Your task to perform on an android device: open the mobile data screen to see how much data has been used Image 0: 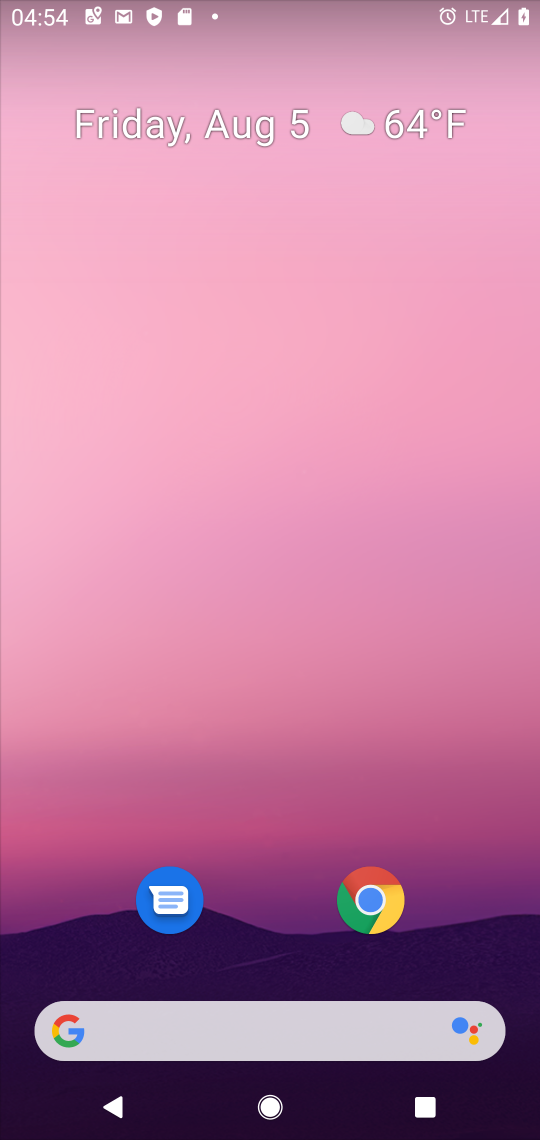
Step 0: drag from (268, 827) to (391, 88)
Your task to perform on an android device: open the mobile data screen to see how much data has been used Image 1: 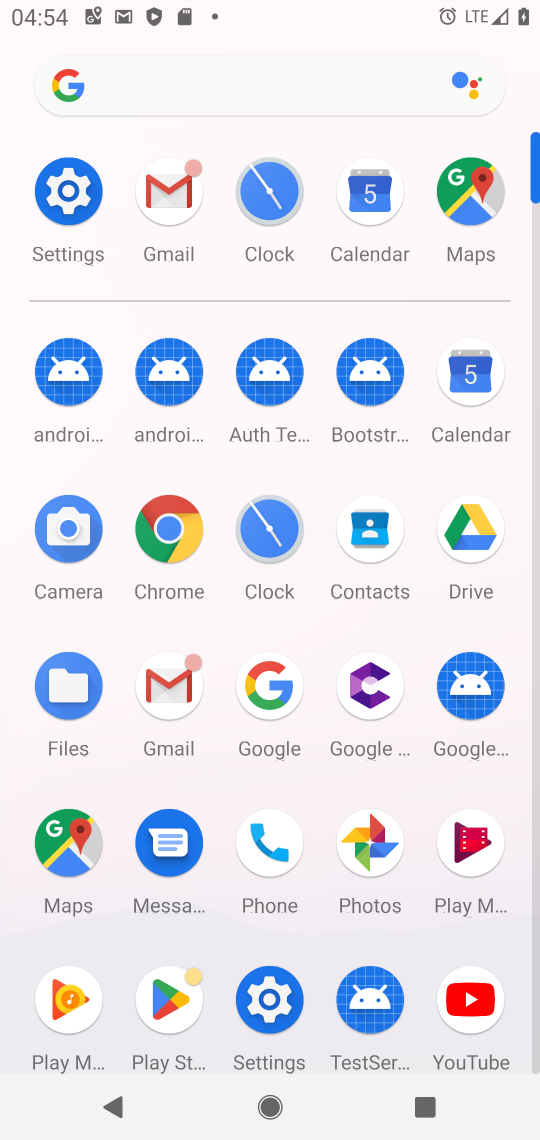
Step 1: click (62, 181)
Your task to perform on an android device: open the mobile data screen to see how much data has been used Image 2: 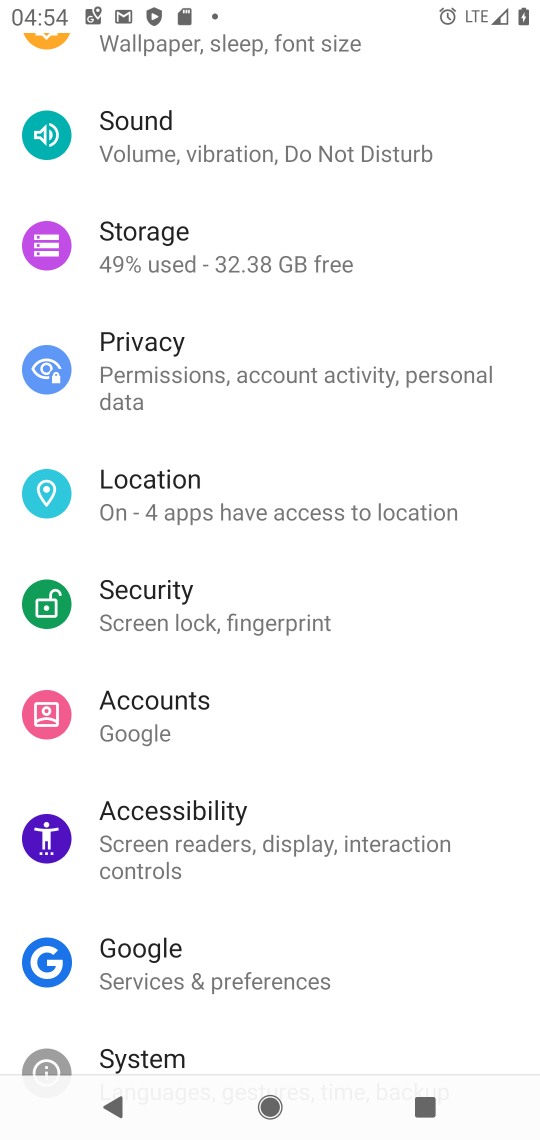
Step 2: drag from (232, 792) to (406, 17)
Your task to perform on an android device: open the mobile data screen to see how much data has been used Image 3: 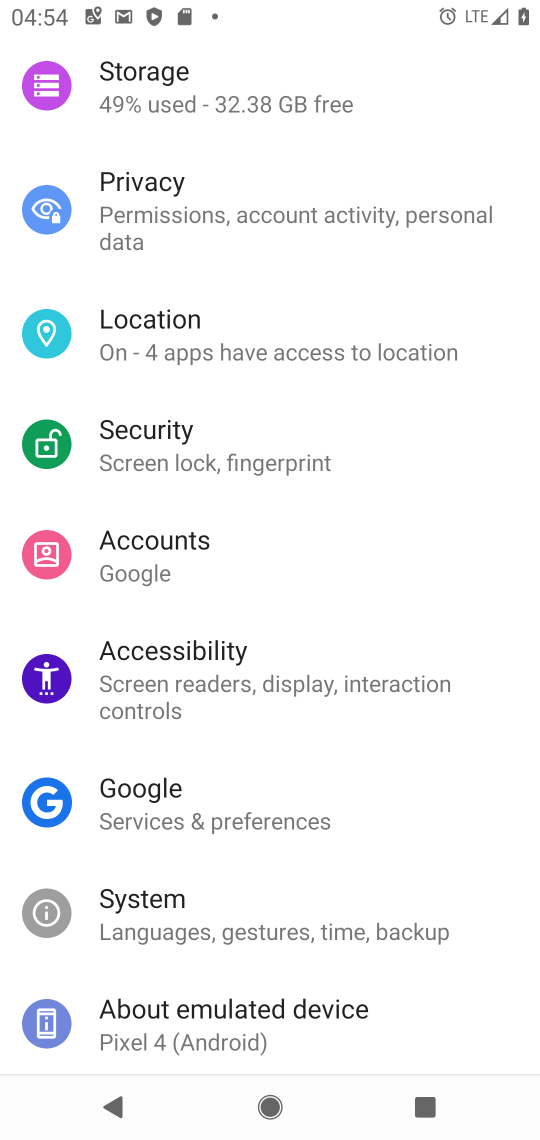
Step 3: drag from (257, 117) to (157, 1138)
Your task to perform on an android device: open the mobile data screen to see how much data has been used Image 4: 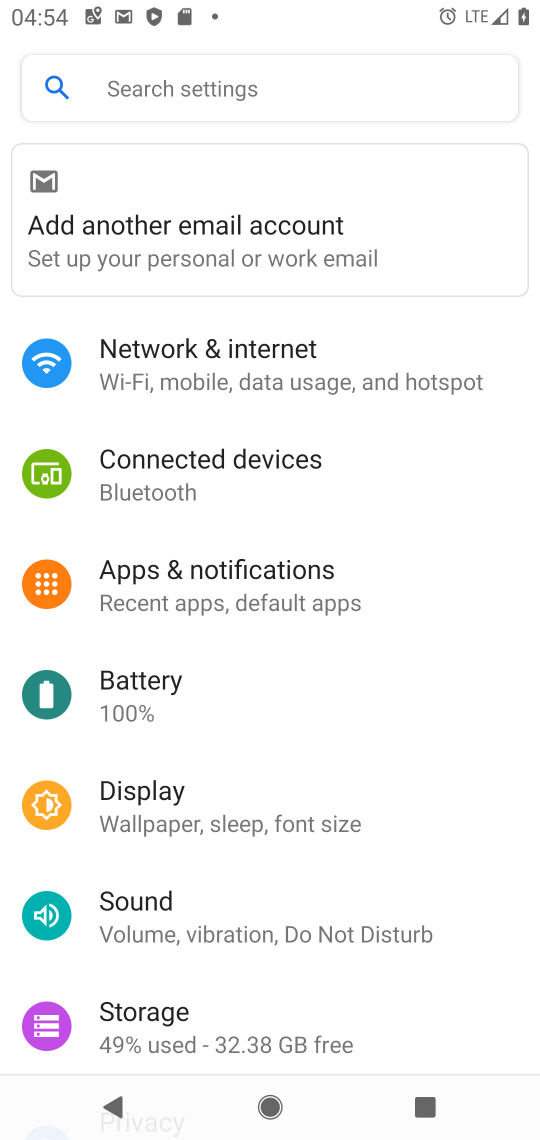
Step 4: drag from (245, 235) to (237, 1035)
Your task to perform on an android device: open the mobile data screen to see how much data has been used Image 5: 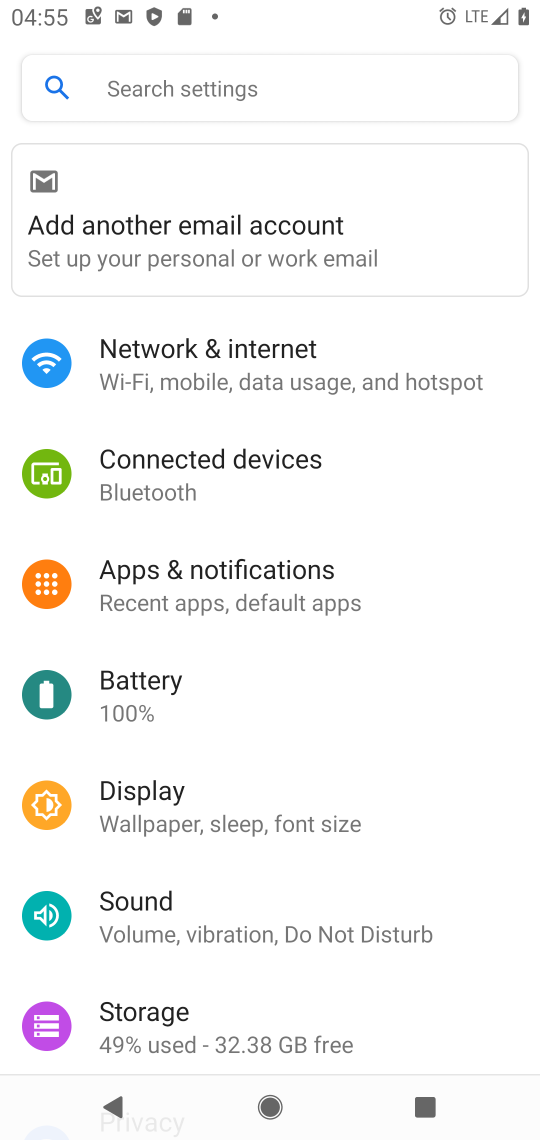
Step 5: click (316, 371)
Your task to perform on an android device: open the mobile data screen to see how much data has been used Image 6: 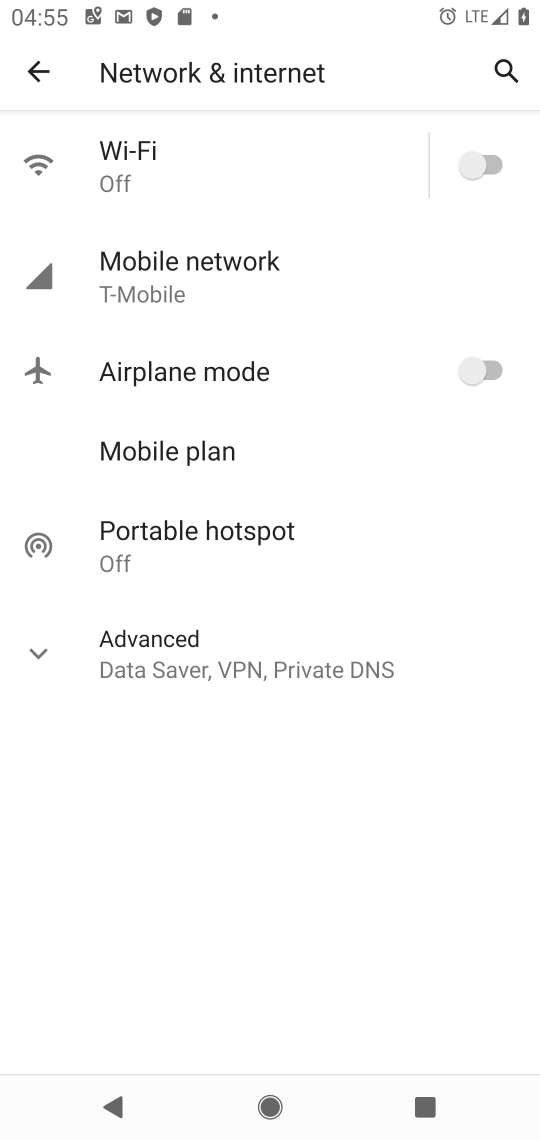
Step 6: click (199, 278)
Your task to perform on an android device: open the mobile data screen to see how much data has been used Image 7: 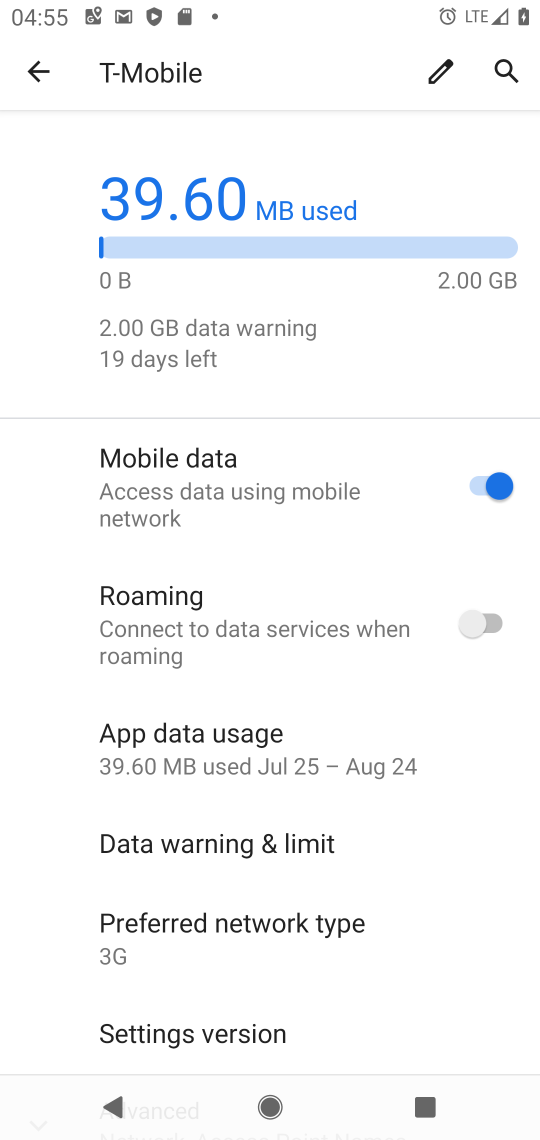
Step 7: click (202, 733)
Your task to perform on an android device: open the mobile data screen to see how much data has been used Image 8: 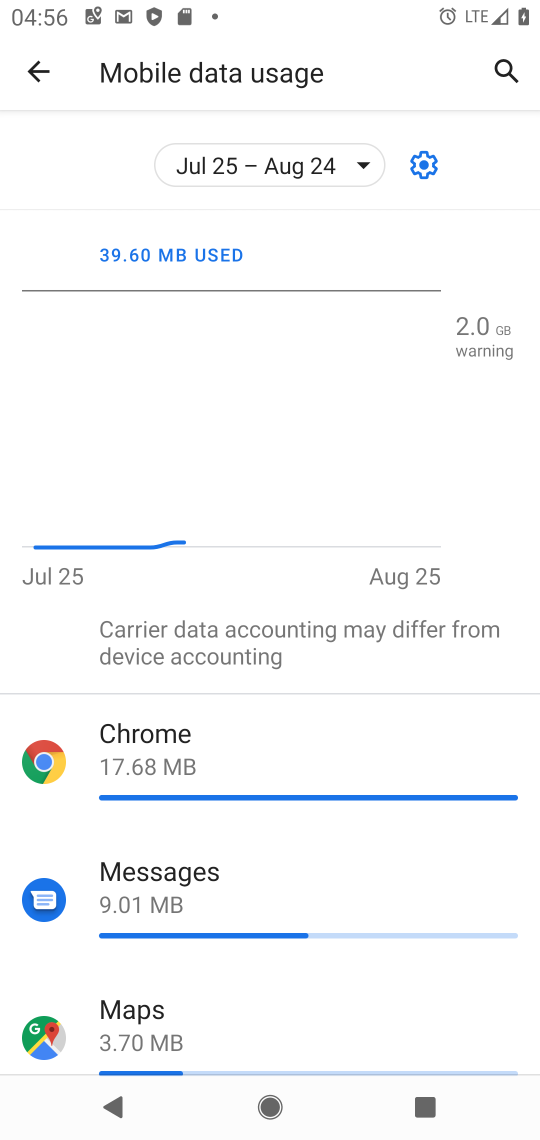
Step 8: task complete